Your task to perform on an android device: turn off location history Image 0: 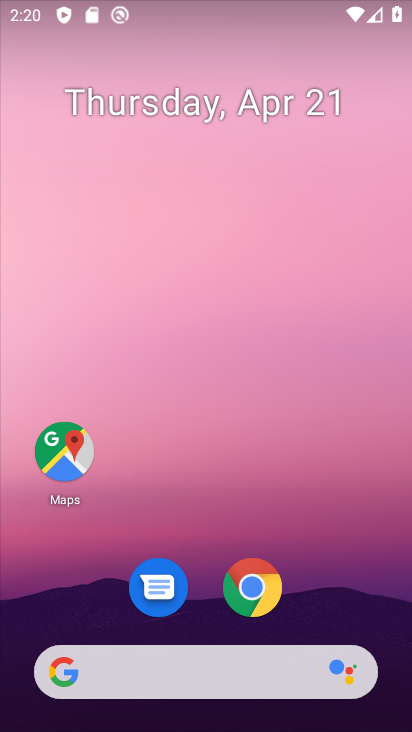
Step 0: drag from (330, 583) to (335, 121)
Your task to perform on an android device: turn off location history Image 1: 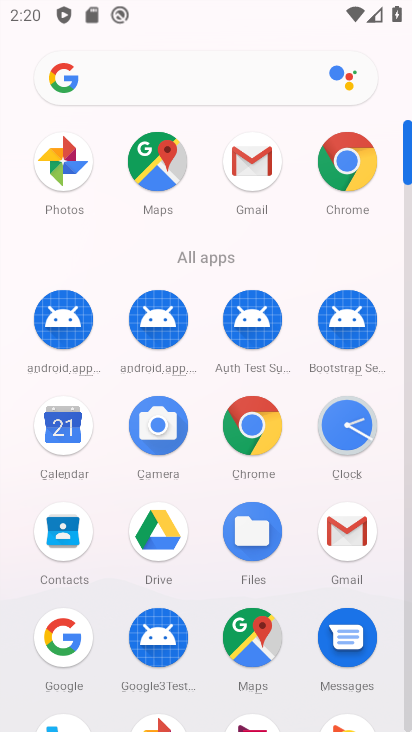
Step 1: drag from (200, 567) to (200, 247)
Your task to perform on an android device: turn off location history Image 2: 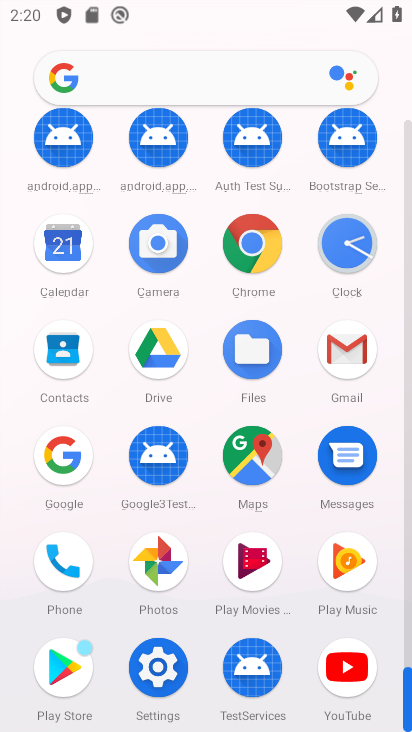
Step 2: click (162, 670)
Your task to perform on an android device: turn off location history Image 3: 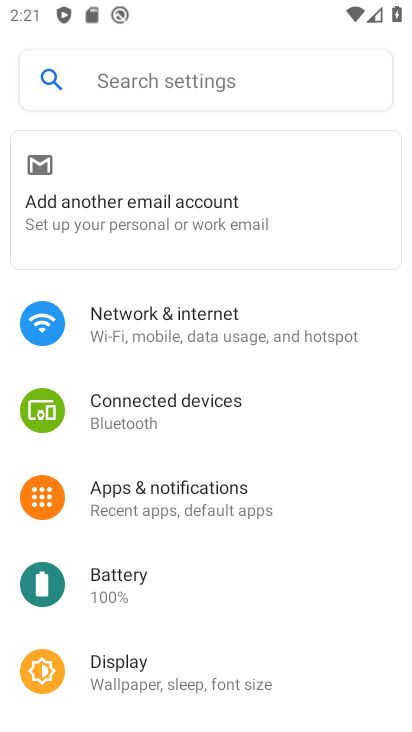
Step 3: drag from (338, 596) to (338, 377)
Your task to perform on an android device: turn off location history Image 4: 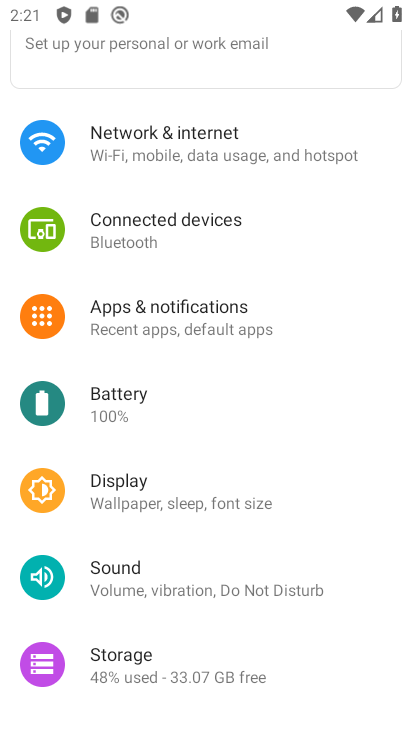
Step 4: drag from (341, 474) to (356, 357)
Your task to perform on an android device: turn off location history Image 5: 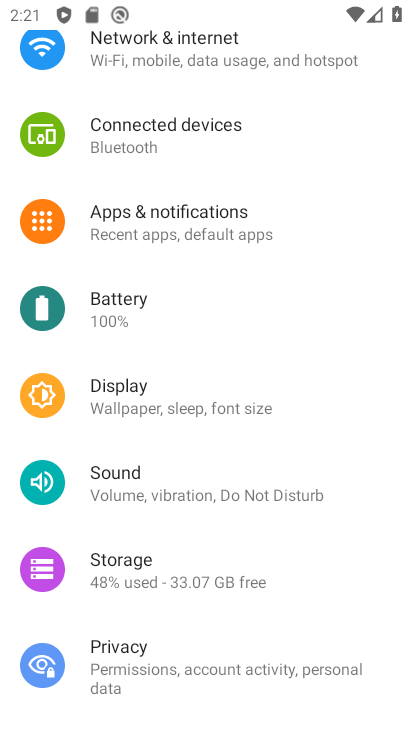
Step 5: drag from (347, 524) to (354, 388)
Your task to perform on an android device: turn off location history Image 6: 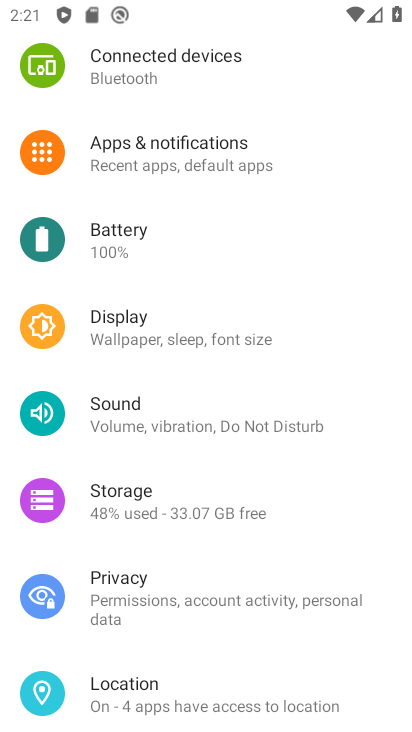
Step 6: drag from (384, 599) to (374, 254)
Your task to perform on an android device: turn off location history Image 7: 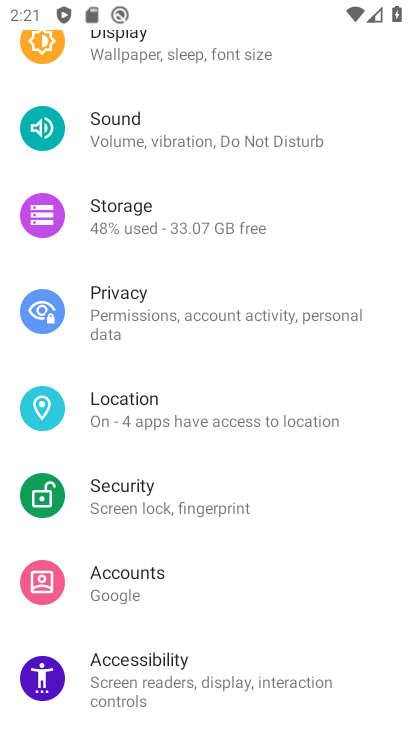
Step 7: click (237, 409)
Your task to perform on an android device: turn off location history Image 8: 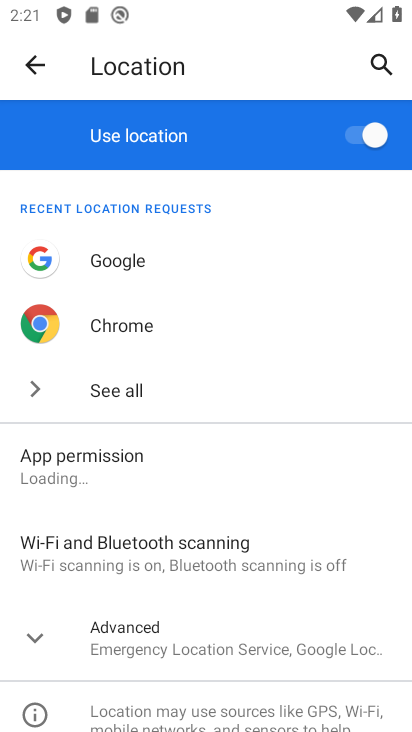
Step 8: drag from (319, 595) to (321, 370)
Your task to perform on an android device: turn off location history Image 9: 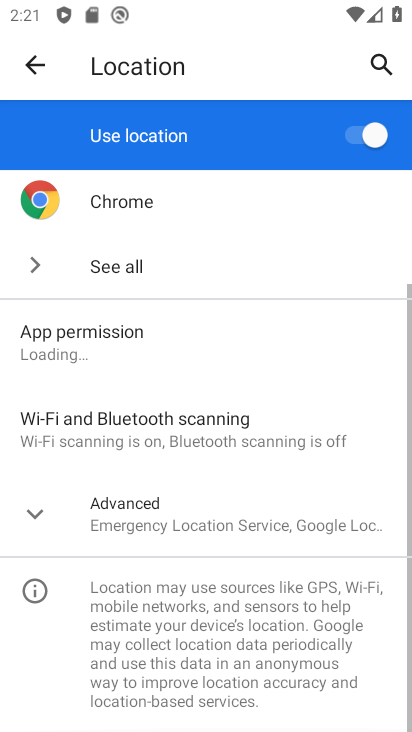
Step 9: click (311, 533)
Your task to perform on an android device: turn off location history Image 10: 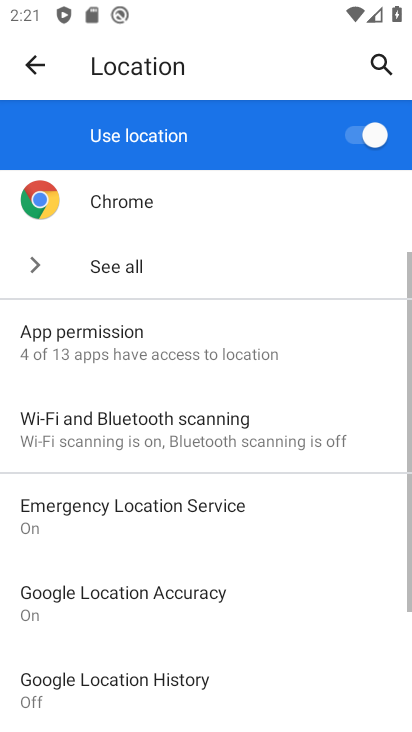
Step 10: drag from (336, 581) to (333, 448)
Your task to perform on an android device: turn off location history Image 11: 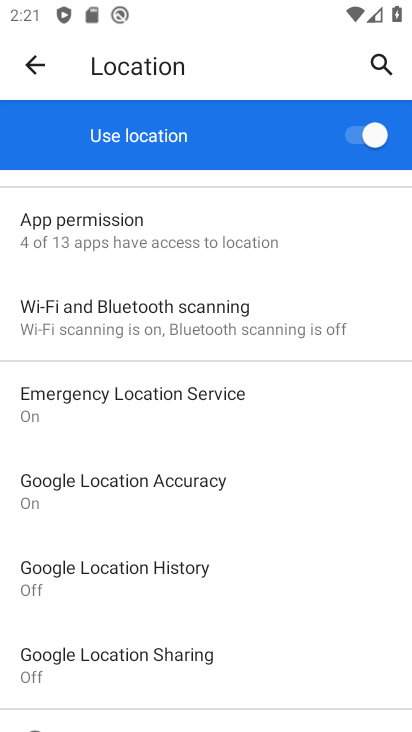
Step 11: drag from (333, 600) to (337, 475)
Your task to perform on an android device: turn off location history Image 12: 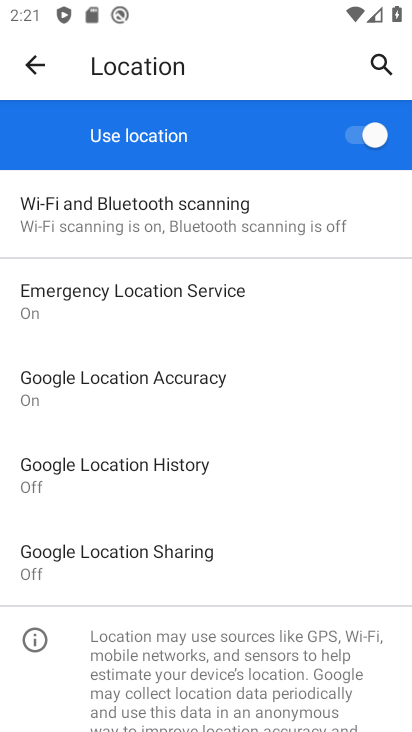
Step 12: drag from (305, 576) to (307, 461)
Your task to perform on an android device: turn off location history Image 13: 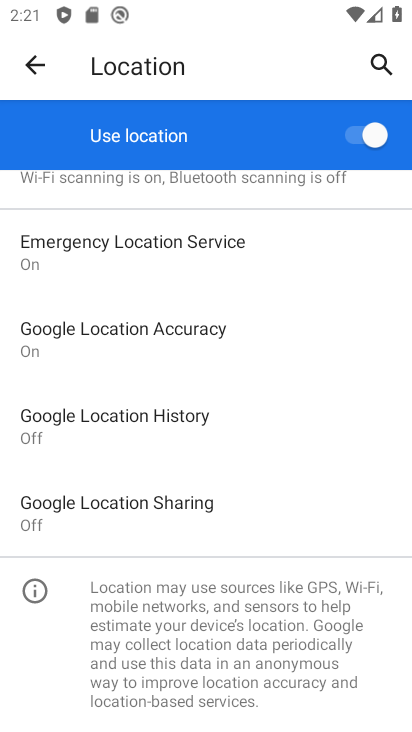
Step 13: click (145, 409)
Your task to perform on an android device: turn off location history Image 14: 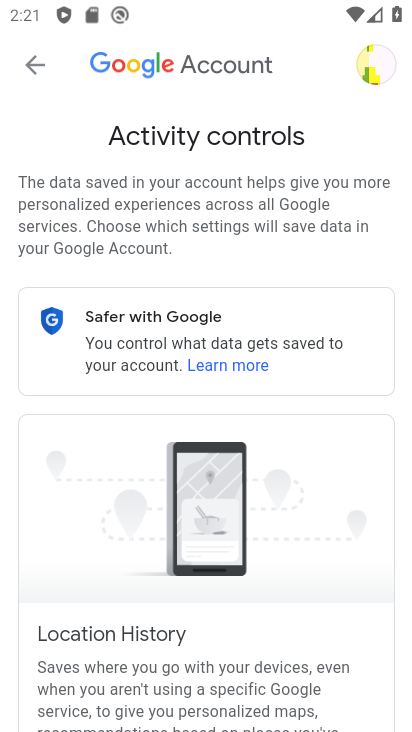
Step 14: task complete